Your task to perform on an android device: delete the emails in spam in the gmail app Image 0: 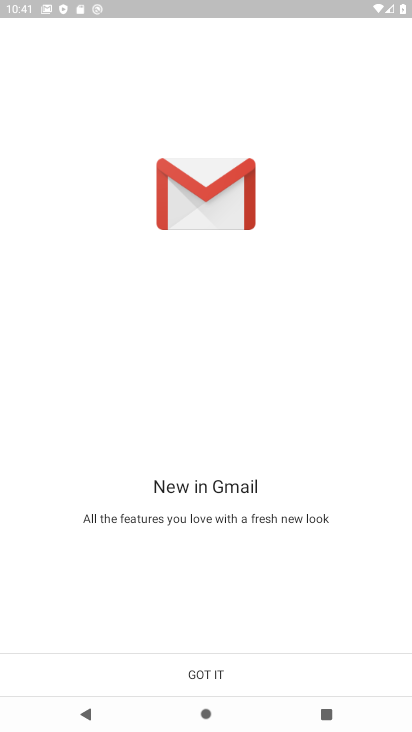
Step 0: press home button
Your task to perform on an android device: delete the emails in spam in the gmail app Image 1: 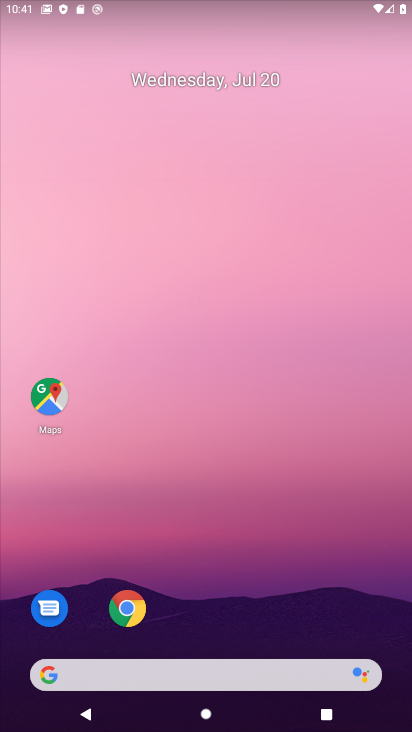
Step 1: drag from (357, 609) to (170, 77)
Your task to perform on an android device: delete the emails in spam in the gmail app Image 2: 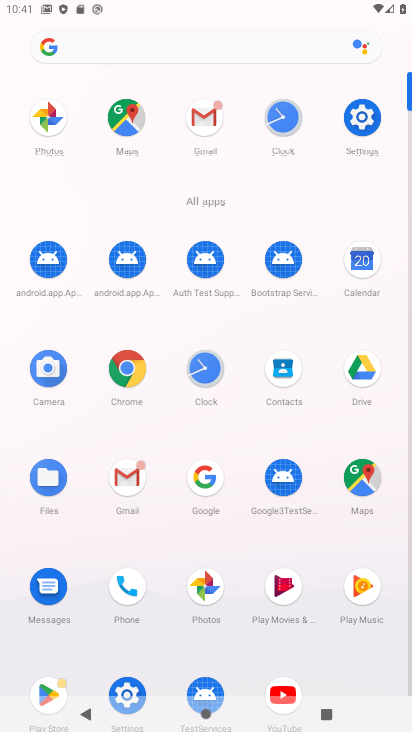
Step 2: click (135, 474)
Your task to perform on an android device: delete the emails in spam in the gmail app Image 3: 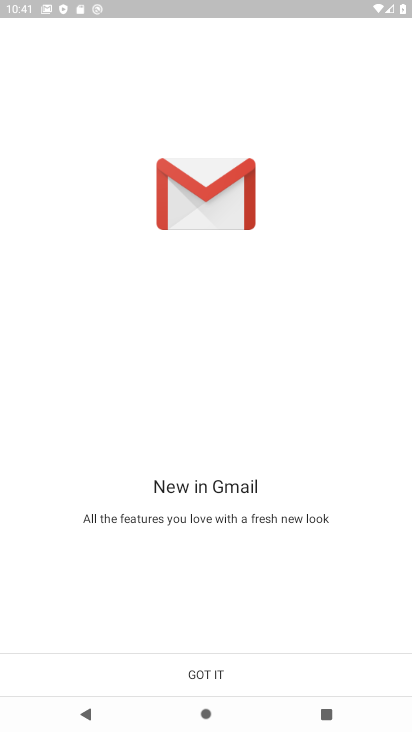
Step 3: click (200, 668)
Your task to perform on an android device: delete the emails in spam in the gmail app Image 4: 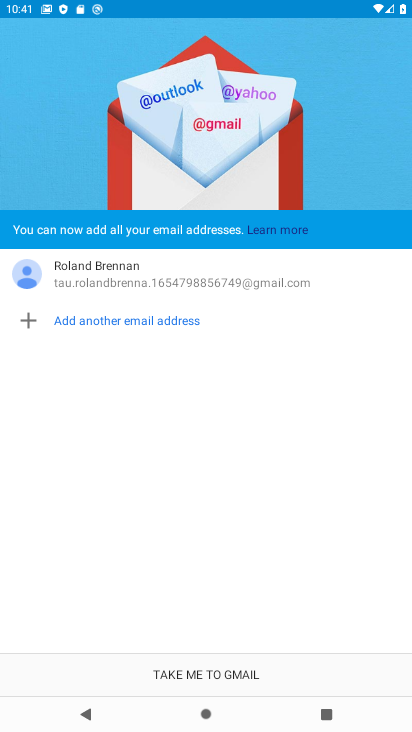
Step 4: click (200, 668)
Your task to perform on an android device: delete the emails in spam in the gmail app Image 5: 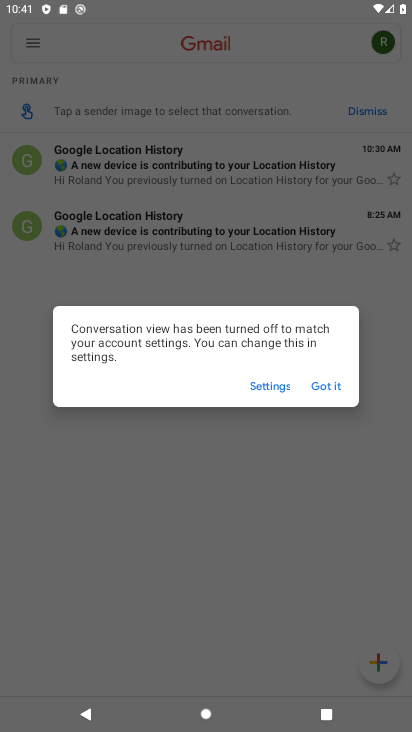
Step 5: click (329, 387)
Your task to perform on an android device: delete the emails in spam in the gmail app Image 6: 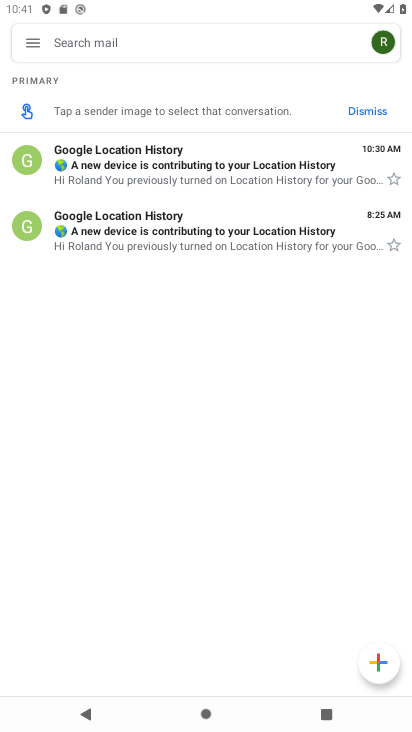
Step 6: task complete